Your task to perform on an android device: change text size in settings app Image 0: 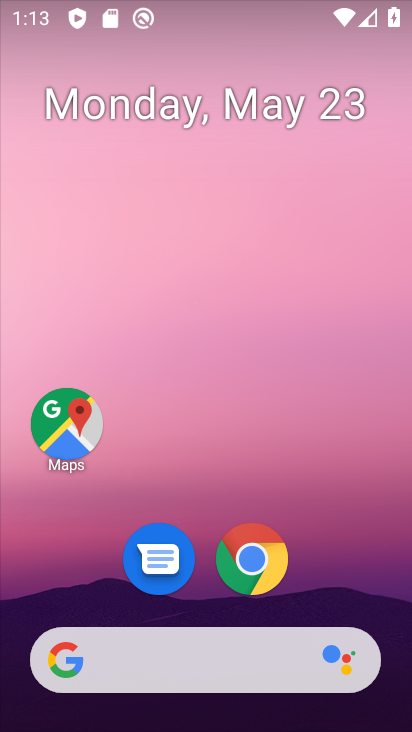
Step 0: drag from (192, 456) to (135, 52)
Your task to perform on an android device: change text size in settings app Image 1: 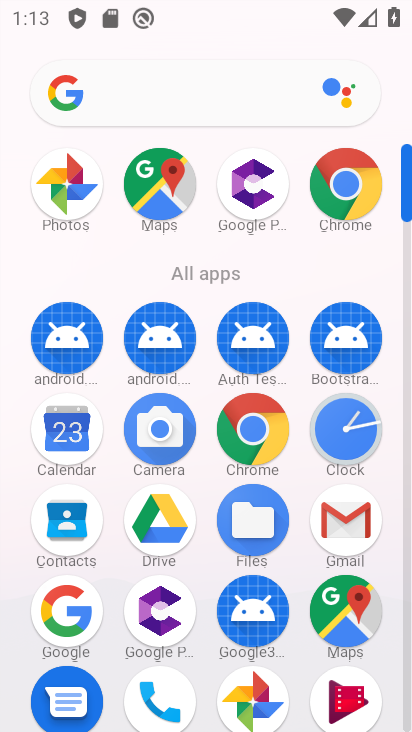
Step 1: drag from (212, 289) to (220, 121)
Your task to perform on an android device: change text size in settings app Image 2: 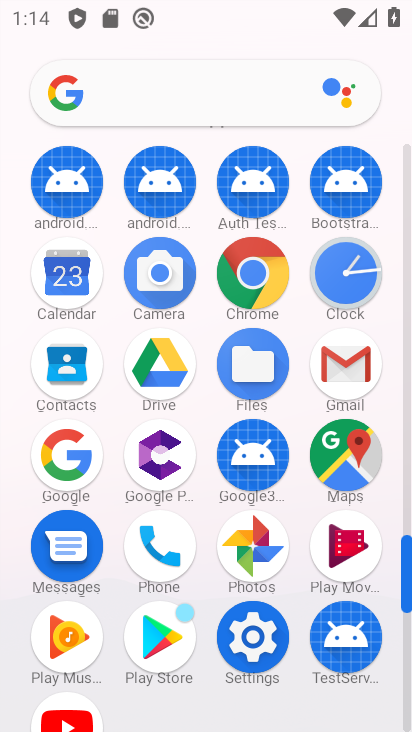
Step 2: click (248, 638)
Your task to perform on an android device: change text size in settings app Image 3: 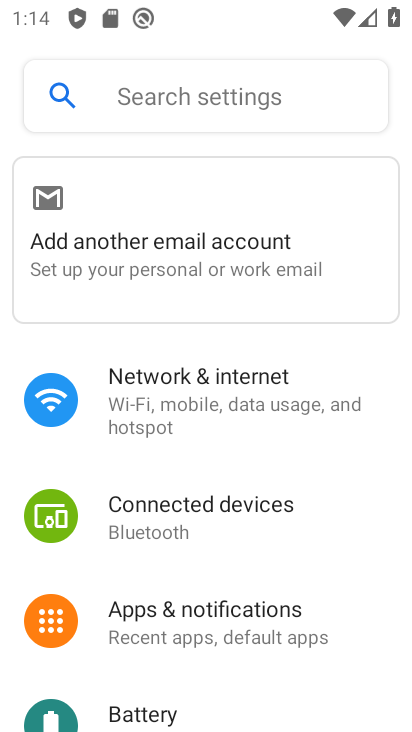
Step 3: drag from (226, 625) to (222, 154)
Your task to perform on an android device: change text size in settings app Image 4: 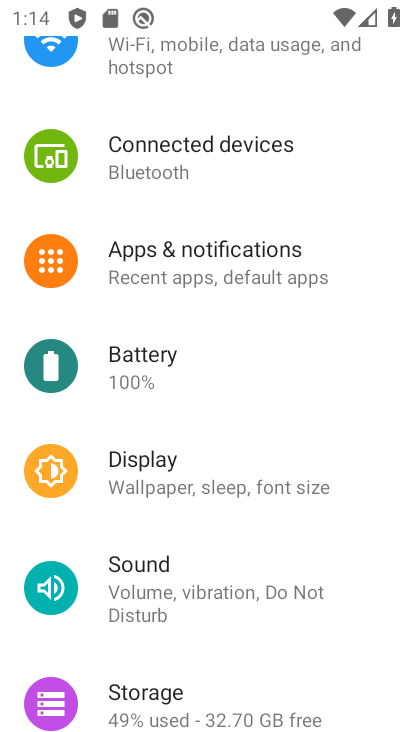
Step 4: click (194, 482)
Your task to perform on an android device: change text size in settings app Image 5: 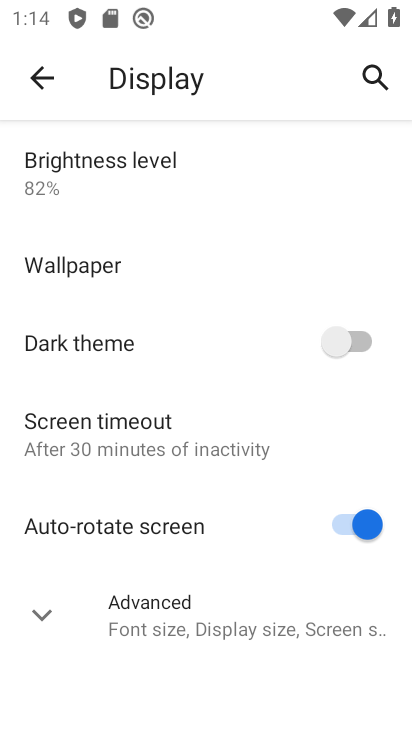
Step 5: click (191, 624)
Your task to perform on an android device: change text size in settings app Image 6: 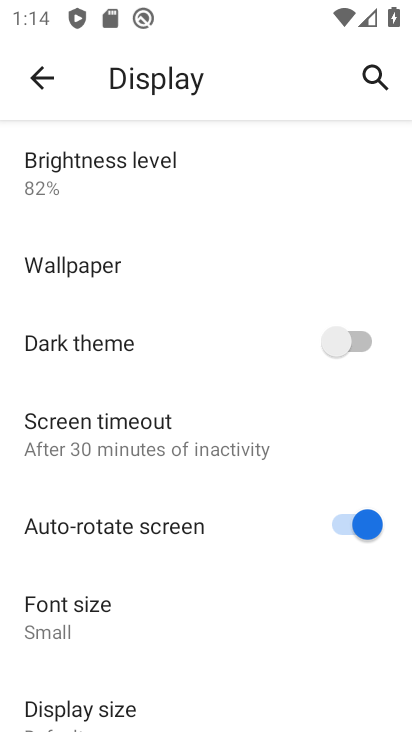
Step 6: drag from (143, 630) to (156, 343)
Your task to perform on an android device: change text size in settings app Image 7: 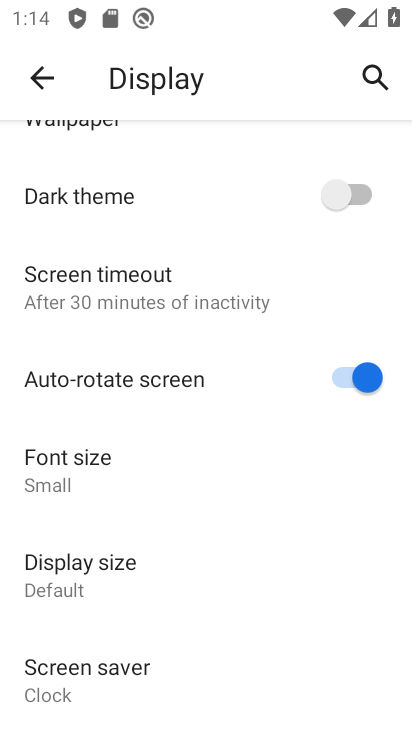
Step 7: click (92, 466)
Your task to perform on an android device: change text size in settings app Image 8: 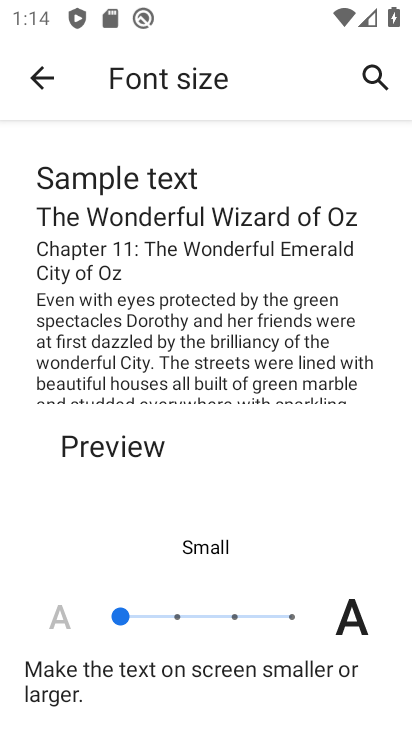
Step 8: click (179, 611)
Your task to perform on an android device: change text size in settings app Image 9: 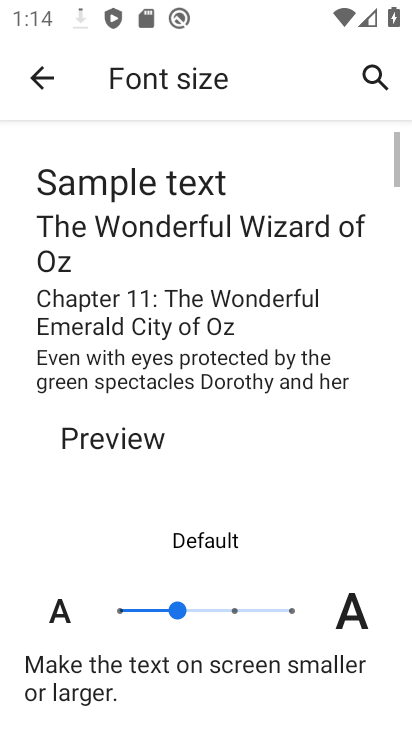
Step 9: task complete